Your task to perform on an android device: turn on airplane mode Image 0: 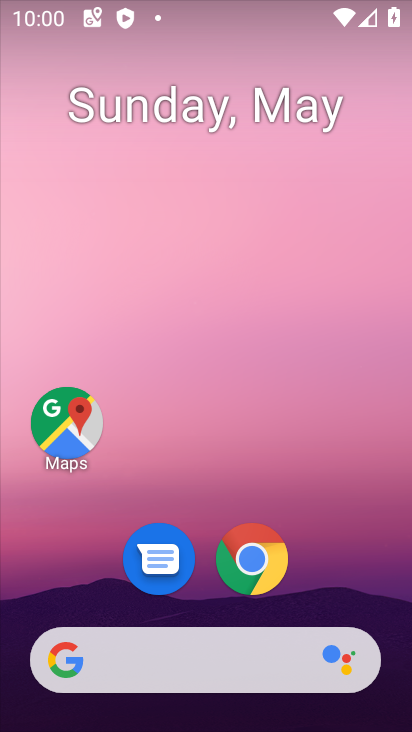
Step 0: drag from (223, 612) to (136, 82)
Your task to perform on an android device: turn on airplane mode Image 1: 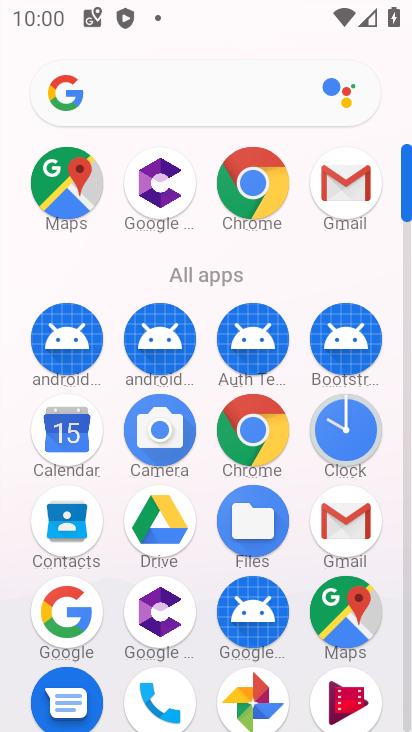
Step 1: drag from (202, 555) to (181, 84)
Your task to perform on an android device: turn on airplane mode Image 2: 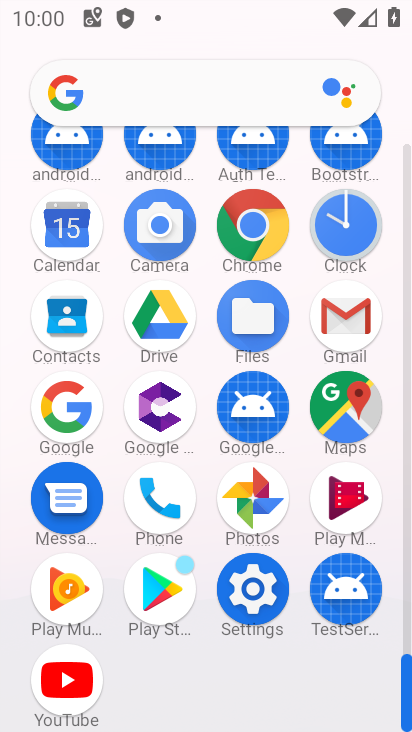
Step 2: click (262, 581)
Your task to perform on an android device: turn on airplane mode Image 3: 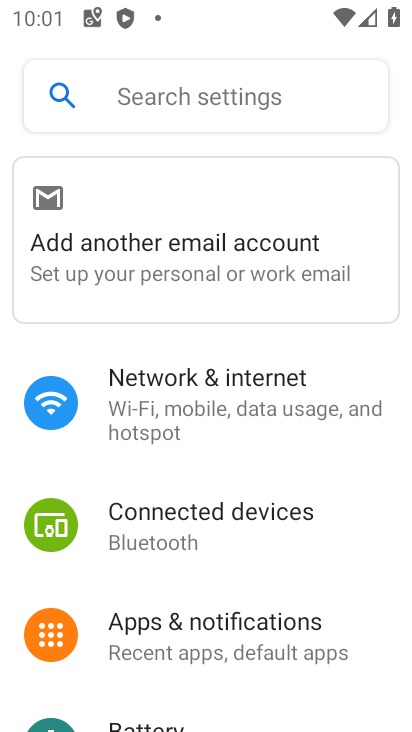
Step 3: click (200, 425)
Your task to perform on an android device: turn on airplane mode Image 4: 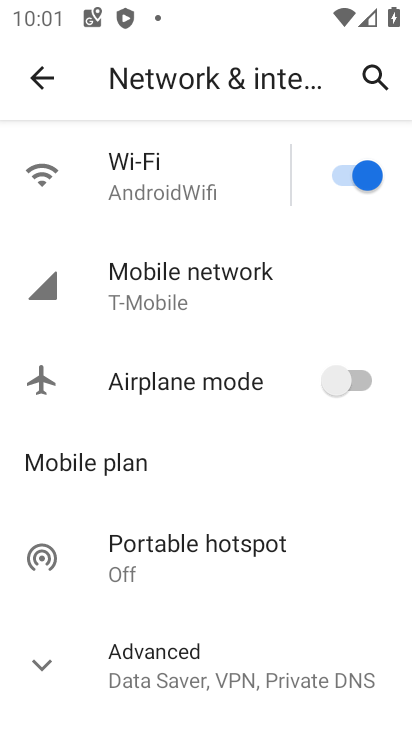
Step 4: click (349, 395)
Your task to perform on an android device: turn on airplane mode Image 5: 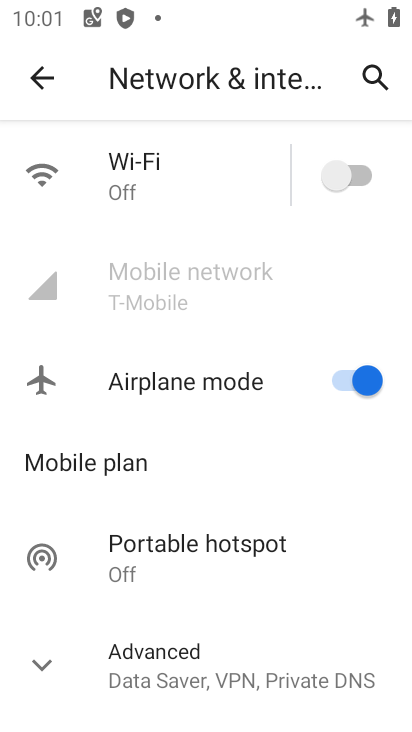
Step 5: task complete